Your task to perform on an android device: Clear the shopping cart on costco. Image 0: 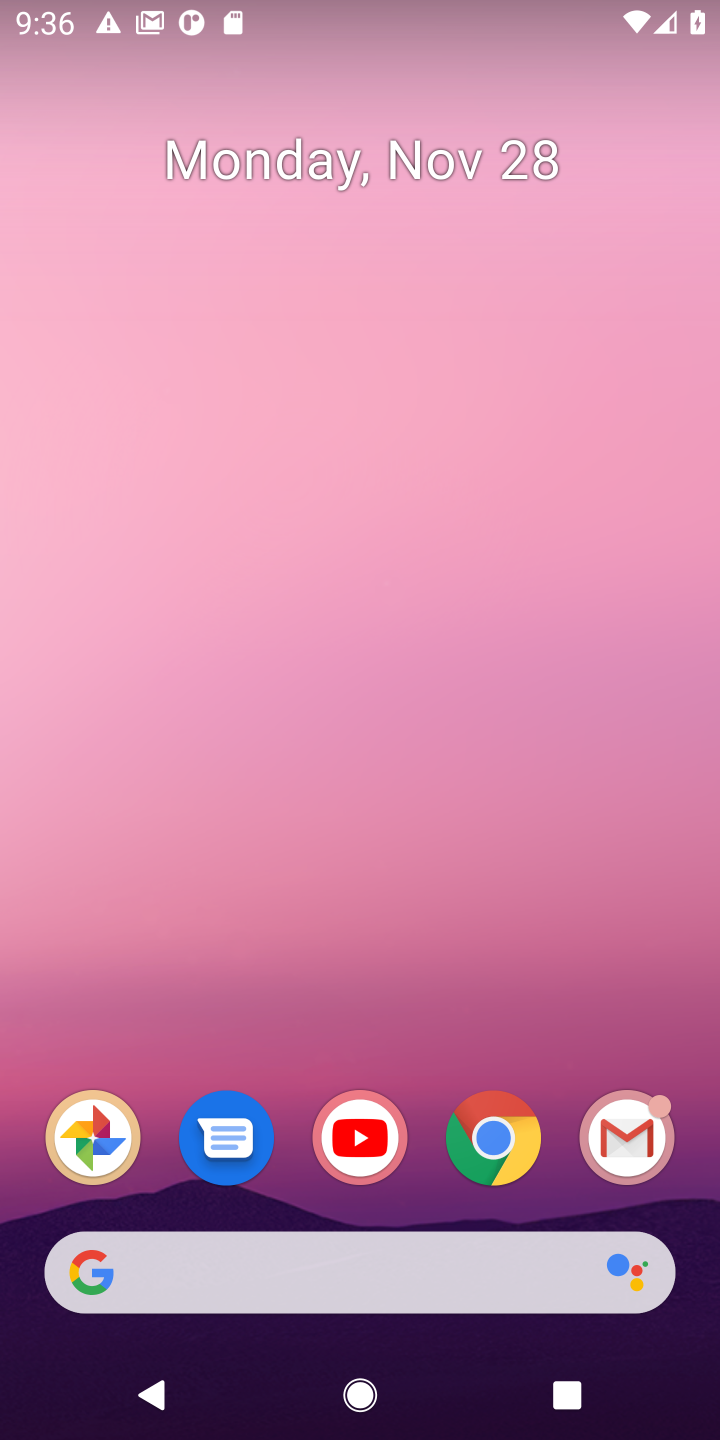
Step 0: click (506, 1148)
Your task to perform on an android device: Clear the shopping cart on costco. Image 1: 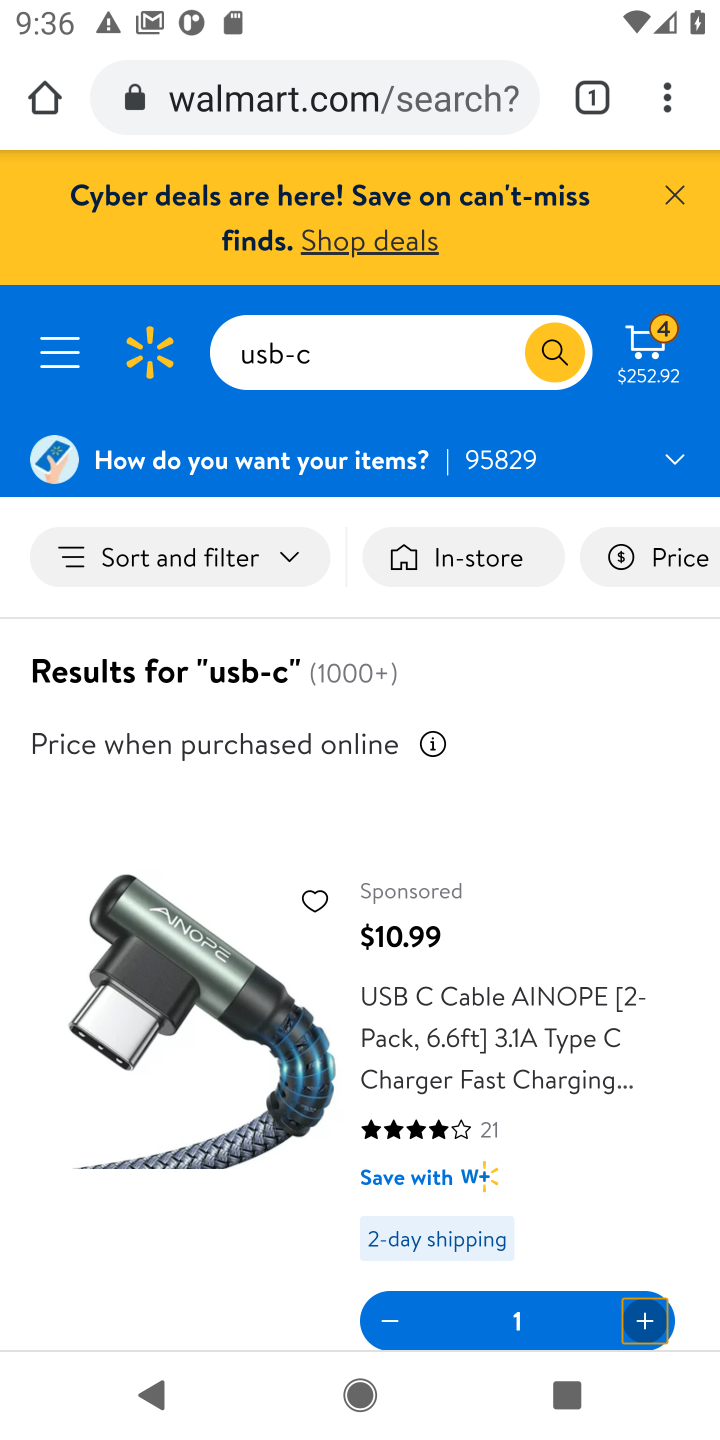
Step 1: click (282, 111)
Your task to perform on an android device: Clear the shopping cart on costco. Image 2: 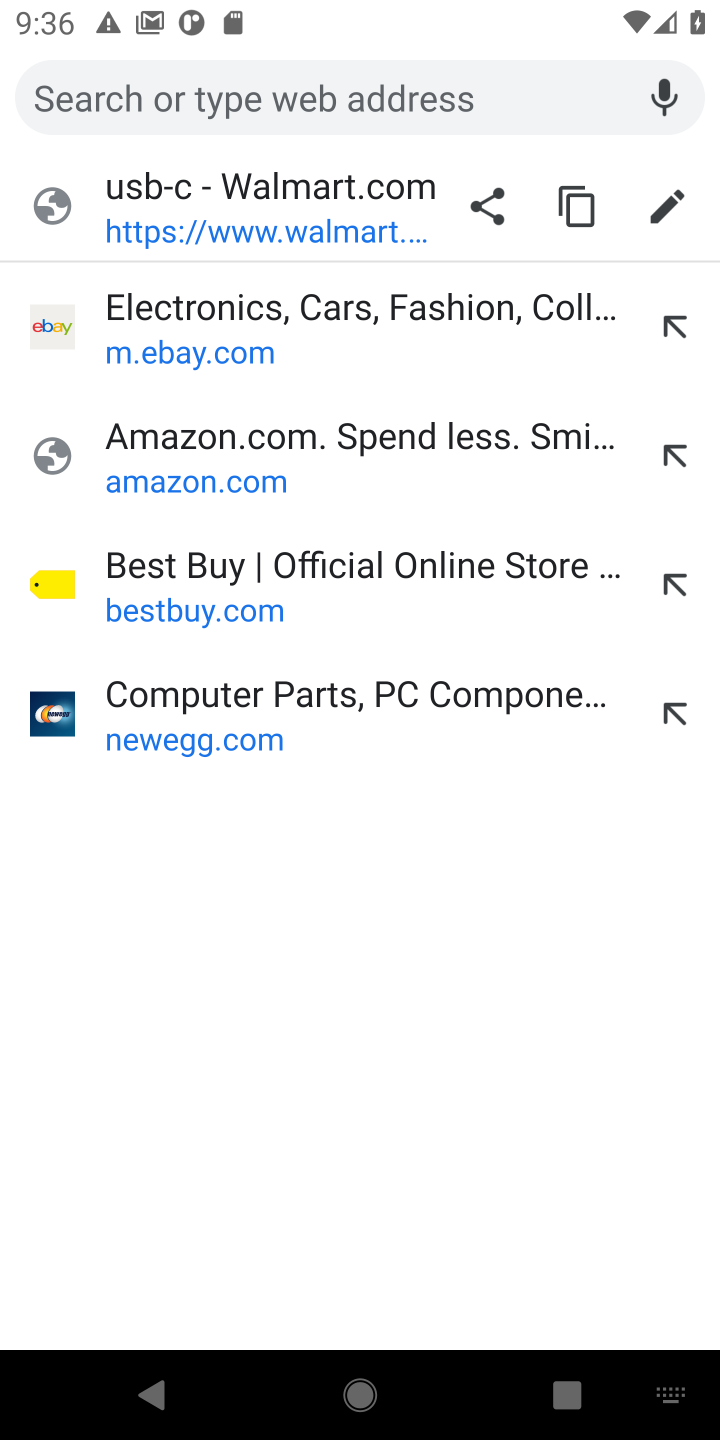
Step 2: type "costco.com"
Your task to perform on an android device: Clear the shopping cart on costco. Image 3: 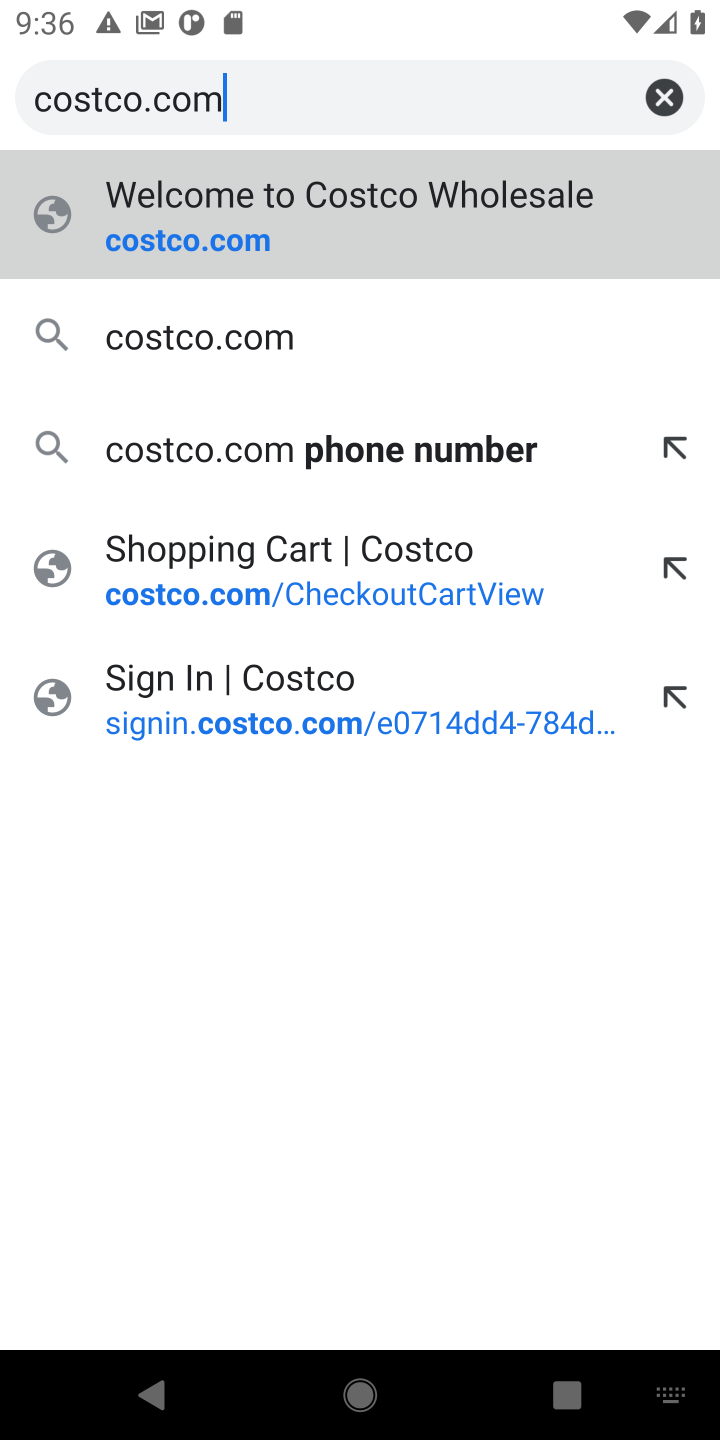
Step 3: click (174, 234)
Your task to perform on an android device: Clear the shopping cart on costco. Image 4: 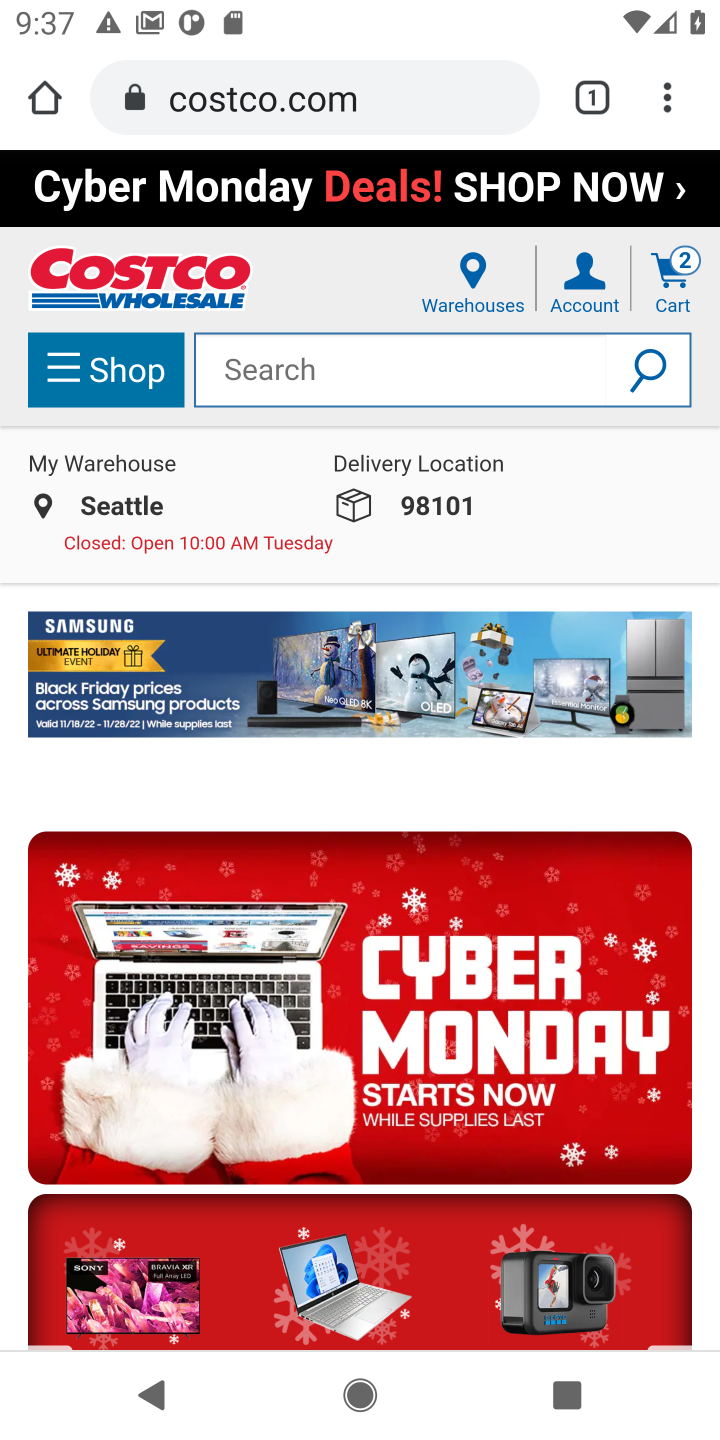
Step 4: click (672, 292)
Your task to perform on an android device: Clear the shopping cart on costco. Image 5: 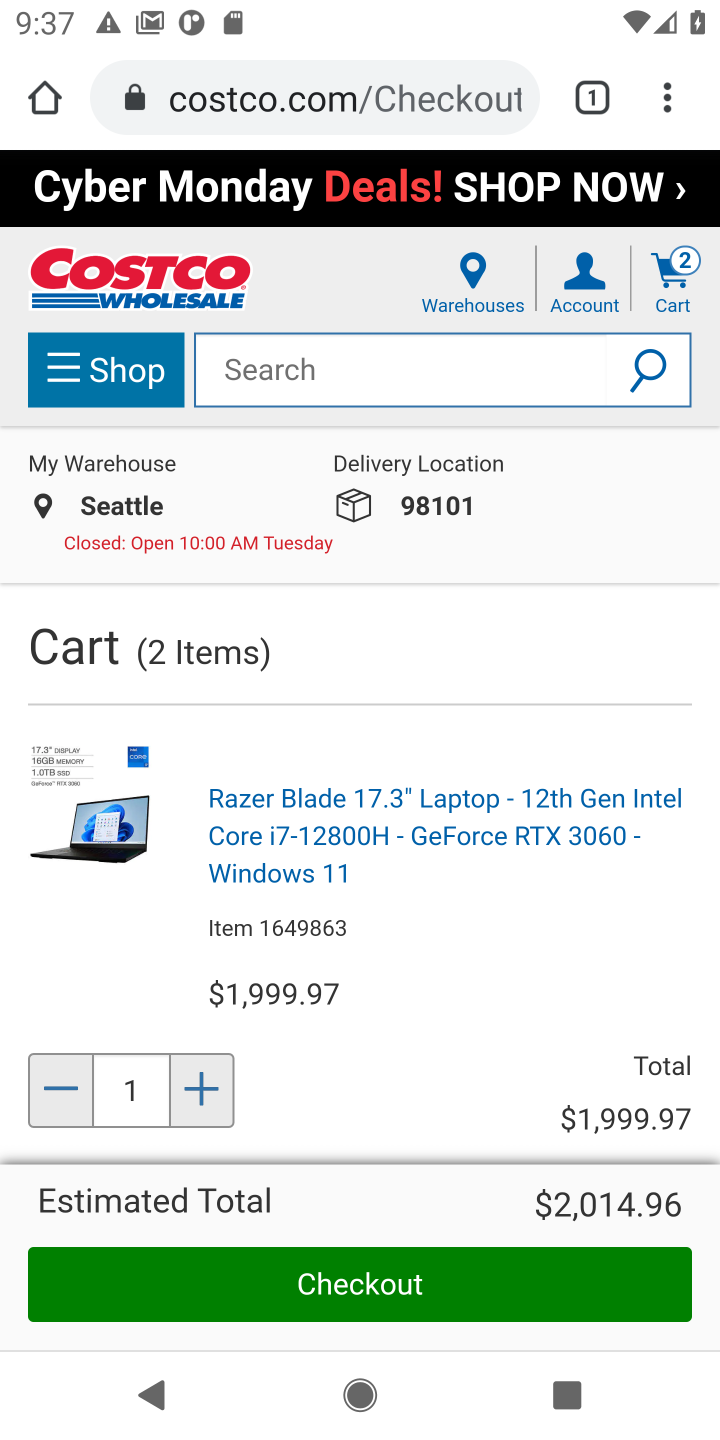
Step 5: drag from (391, 974) to (433, 481)
Your task to perform on an android device: Clear the shopping cart on costco. Image 6: 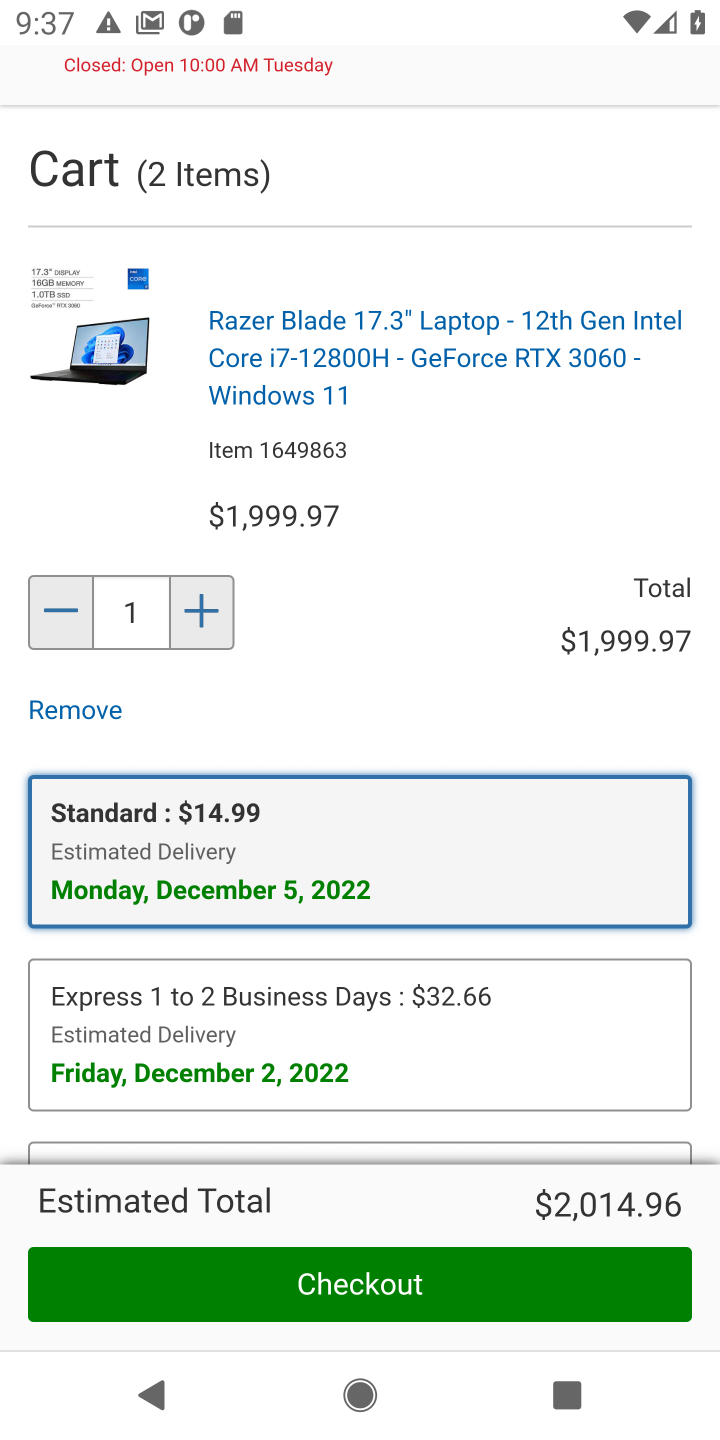
Step 6: drag from (470, 1031) to (498, 481)
Your task to perform on an android device: Clear the shopping cart on costco. Image 7: 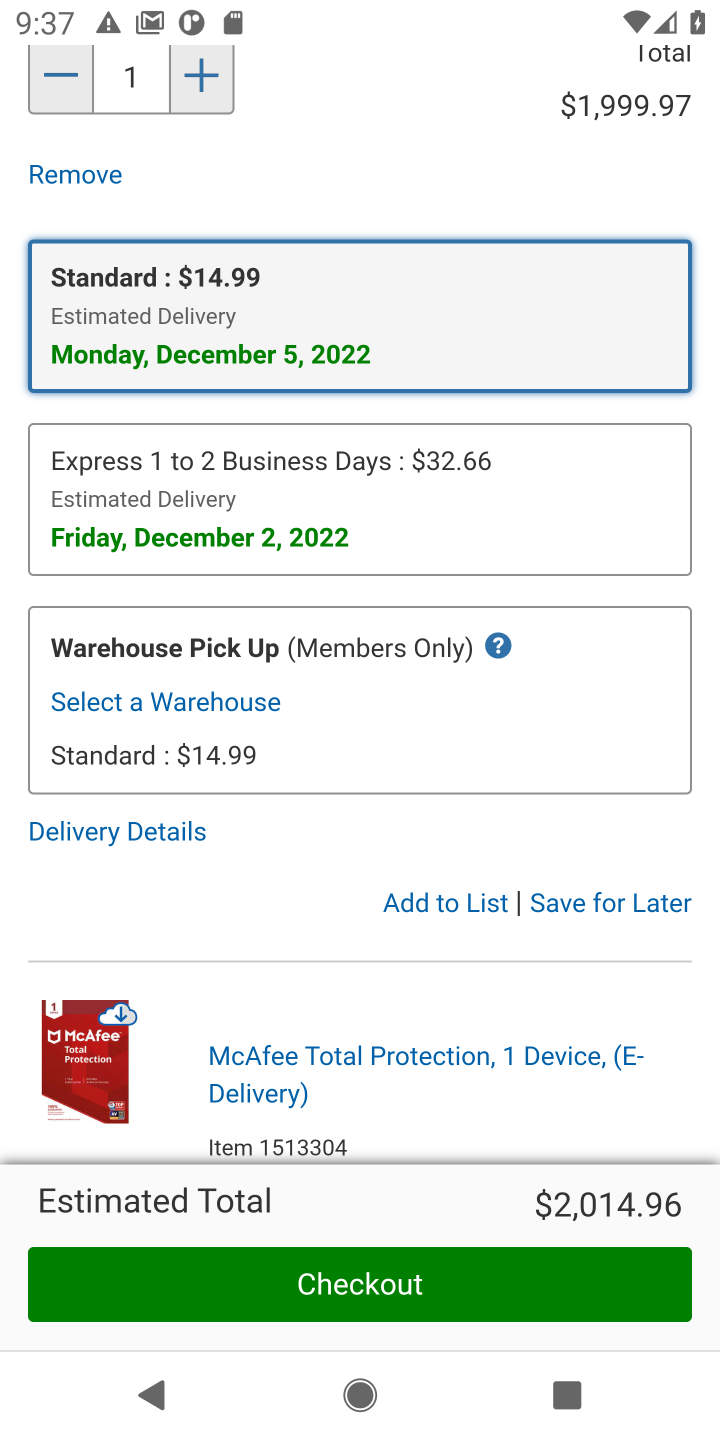
Step 7: click (633, 907)
Your task to perform on an android device: Clear the shopping cart on costco. Image 8: 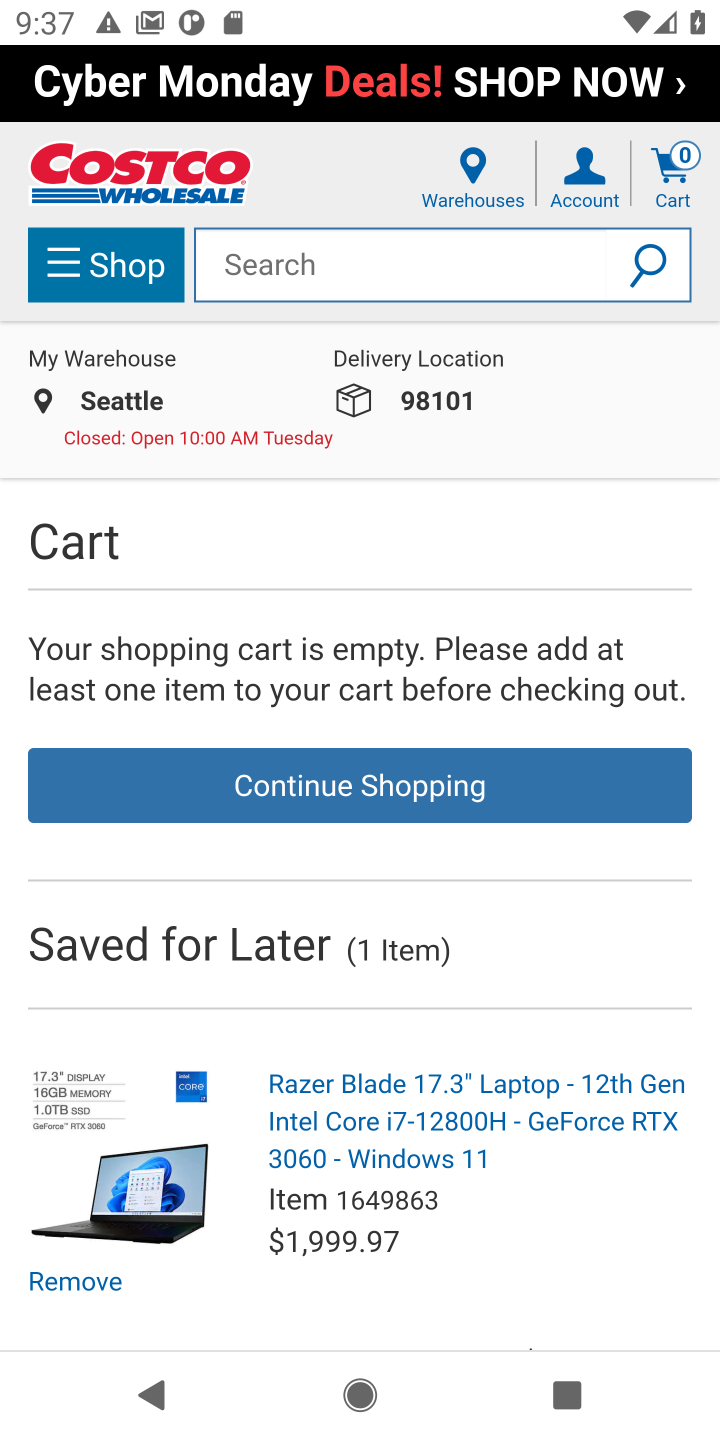
Step 8: task complete